Your task to perform on an android device: Clear the cart on costco.com. Search for acer nitro on costco.com, select the first entry, add it to the cart, then select checkout. Image 0: 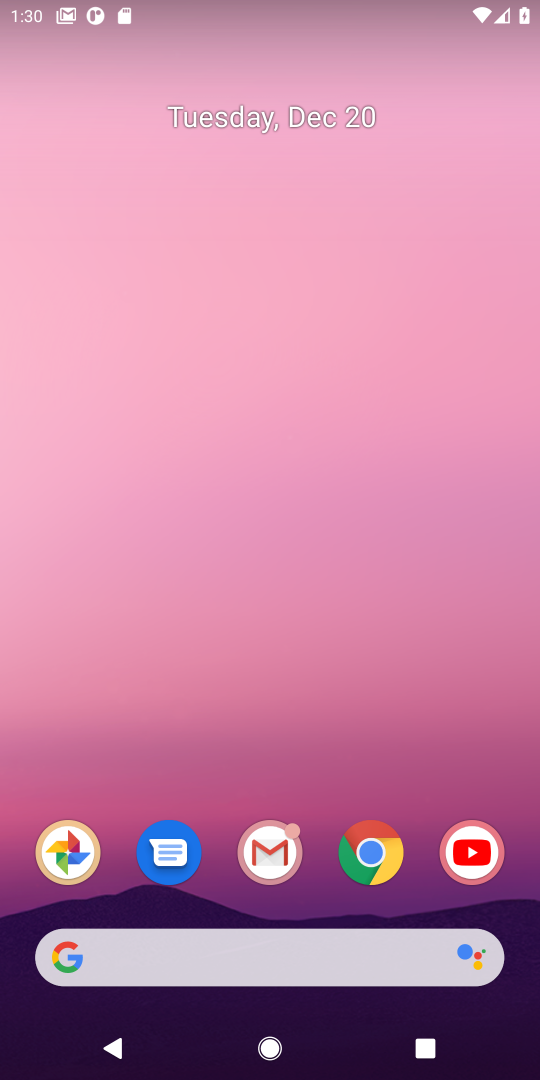
Step 0: click (366, 868)
Your task to perform on an android device: Clear the cart on costco.com. Search for acer nitro on costco.com, select the first entry, add it to the cart, then select checkout. Image 1: 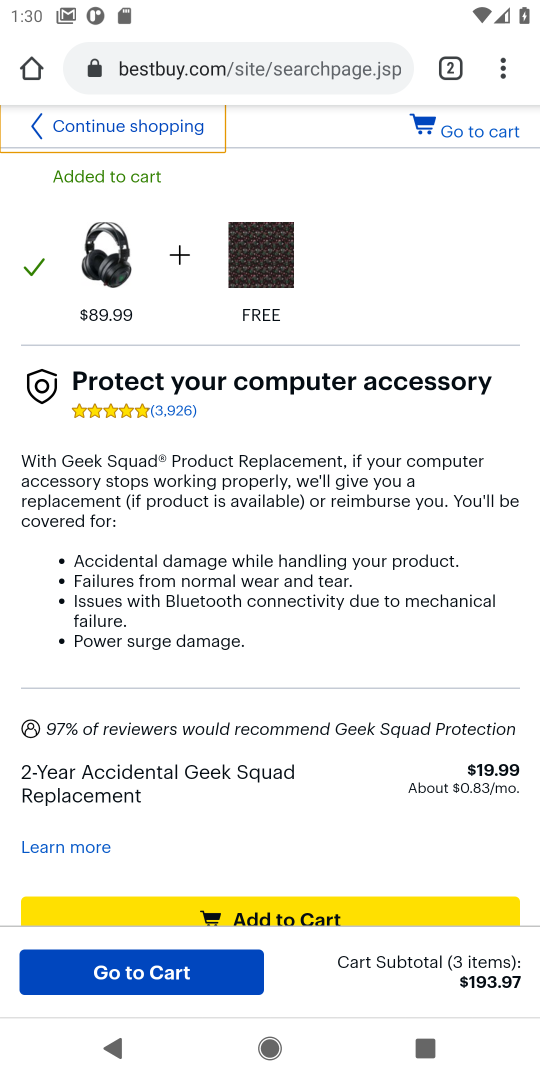
Step 1: click (200, 70)
Your task to perform on an android device: Clear the cart on costco.com. Search for acer nitro on costco.com, select the first entry, add it to the cart, then select checkout. Image 2: 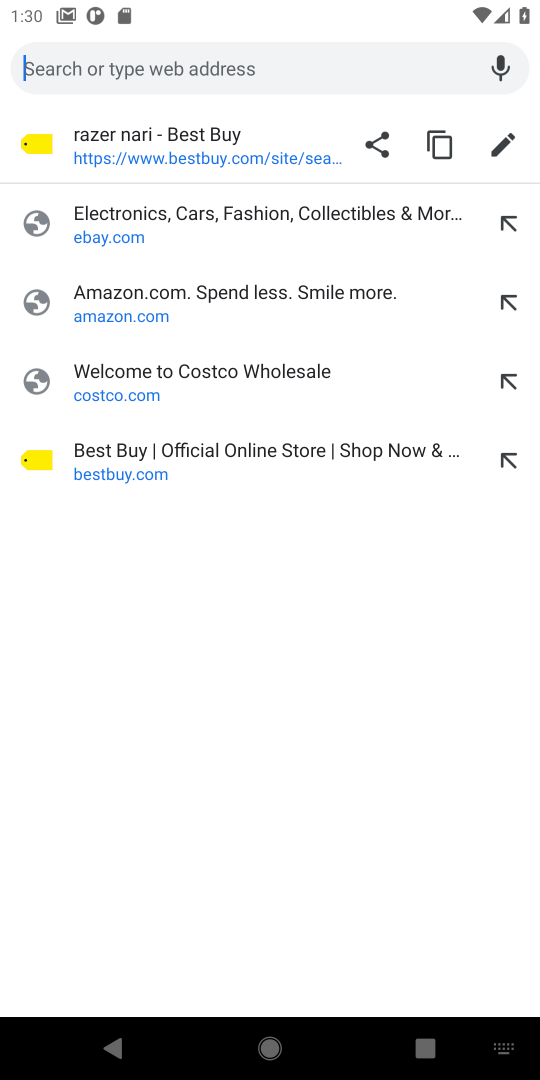
Step 2: click (91, 383)
Your task to perform on an android device: Clear the cart on costco.com. Search for acer nitro on costco.com, select the first entry, add it to the cart, then select checkout. Image 3: 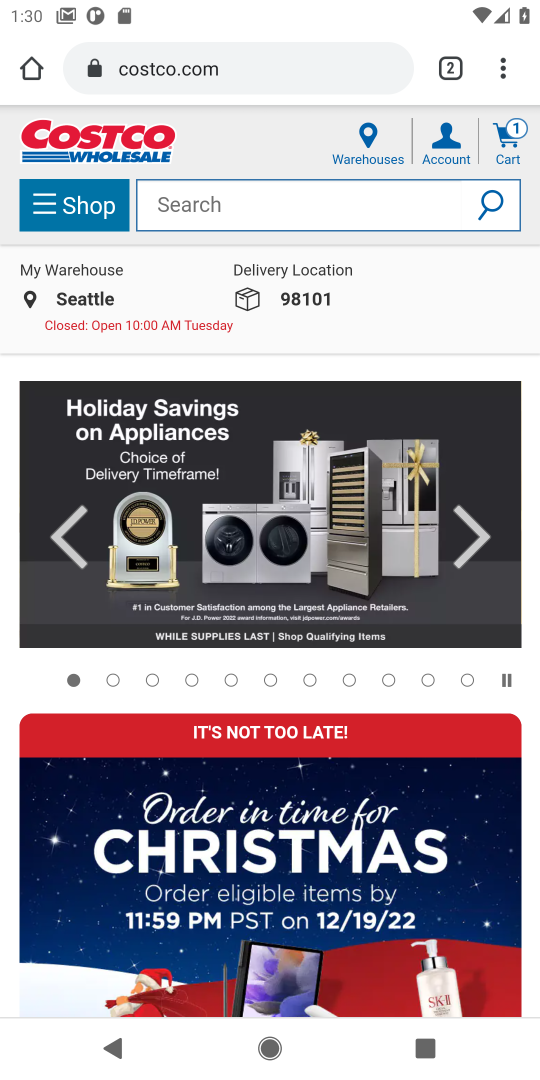
Step 3: click (513, 148)
Your task to perform on an android device: Clear the cart on costco.com. Search for acer nitro on costco.com, select the first entry, add it to the cart, then select checkout. Image 4: 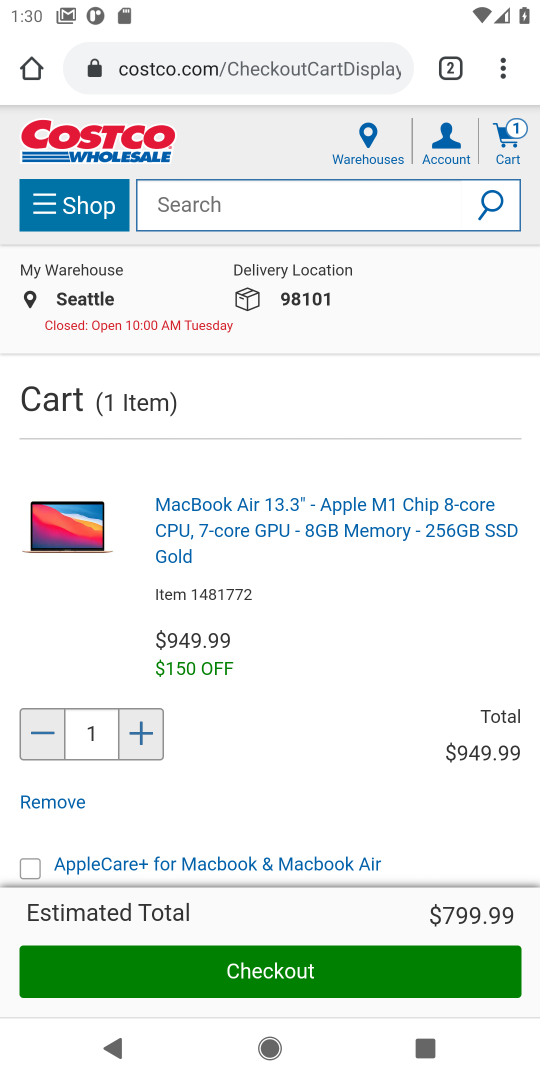
Step 4: drag from (246, 693) to (250, 430)
Your task to perform on an android device: Clear the cart on costco.com. Search for acer nitro on costco.com, select the first entry, add it to the cart, then select checkout. Image 5: 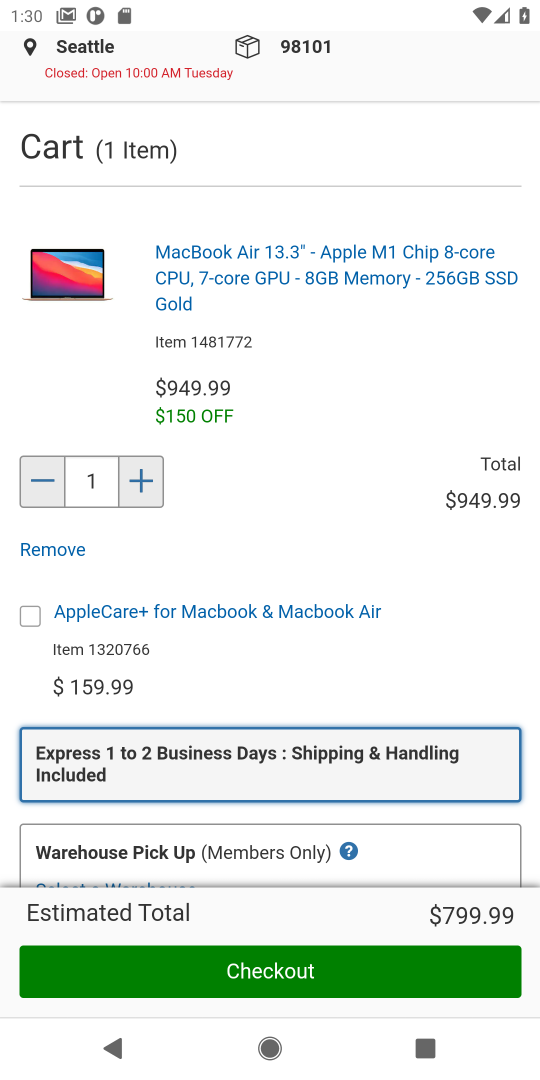
Step 5: drag from (258, 592) to (268, 394)
Your task to perform on an android device: Clear the cart on costco.com. Search for acer nitro on costco.com, select the first entry, add it to the cart, then select checkout. Image 6: 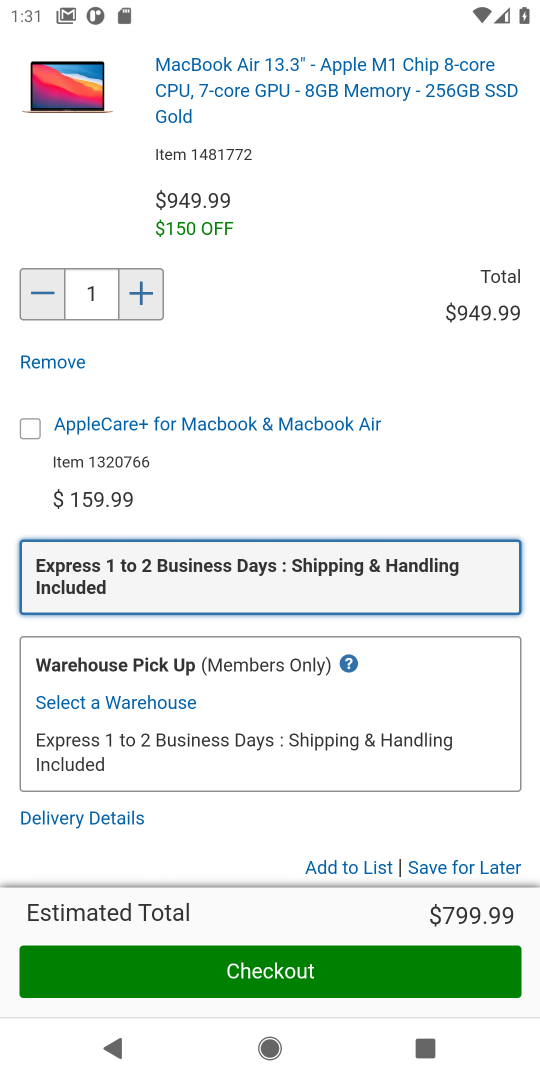
Step 6: click (458, 867)
Your task to perform on an android device: Clear the cart on costco.com. Search for acer nitro on costco.com, select the first entry, add it to the cart, then select checkout. Image 7: 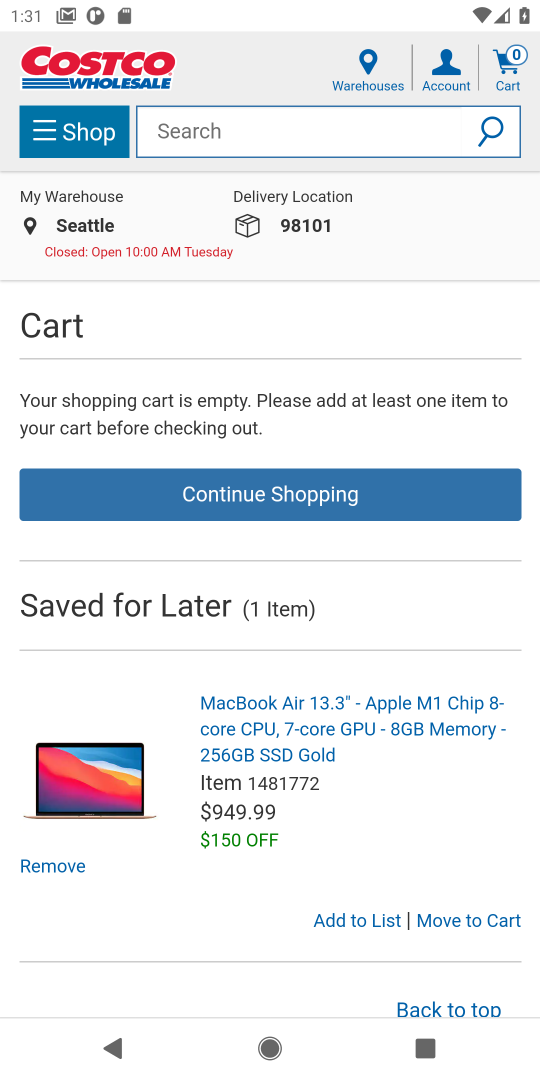
Step 7: click (198, 127)
Your task to perform on an android device: Clear the cart on costco.com. Search for acer nitro on costco.com, select the first entry, add it to the cart, then select checkout. Image 8: 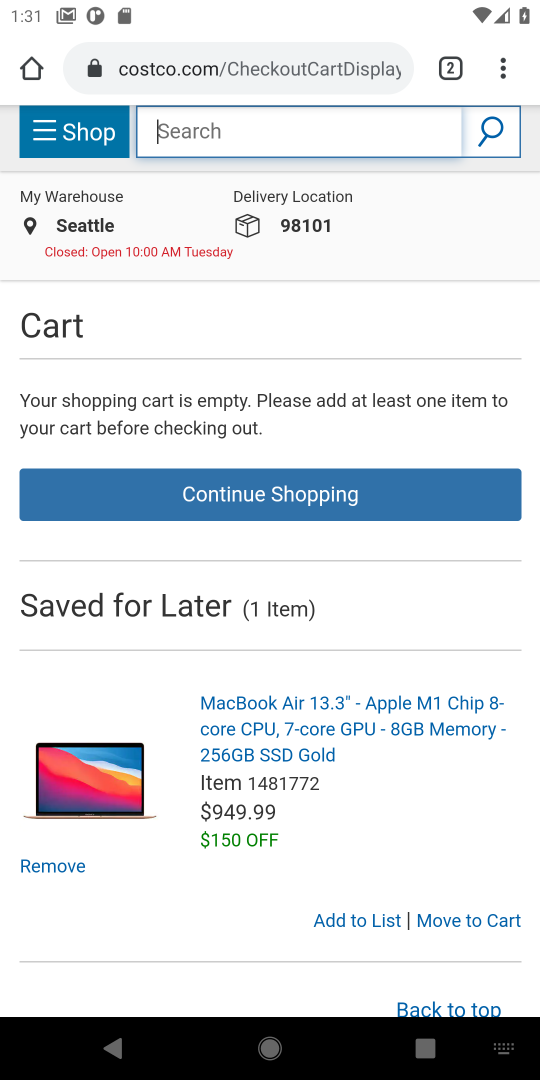
Step 8: type "acer nitro "
Your task to perform on an android device: Clear the cart on costco.com. Search for acer nitro on costco.com, select the first entry, add it to the cart, then select checkout. Image 9: 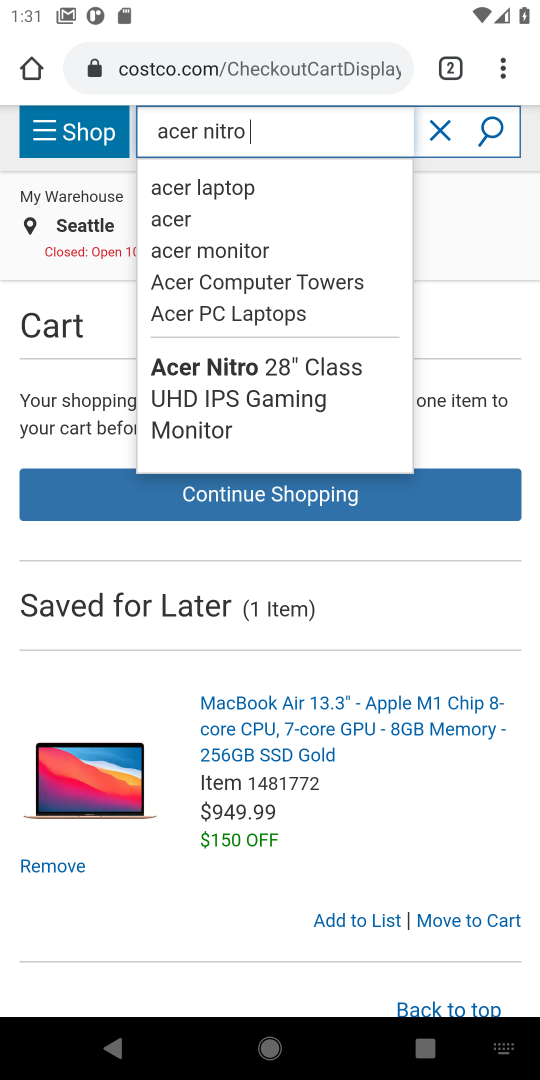
Step 9: click (479, 139)
Your task to perform on an android device: Clear the cart on costco.com. Search for acer nitro on costco.com, select the first entry, add it to the cart, then select checkout. Image 10: 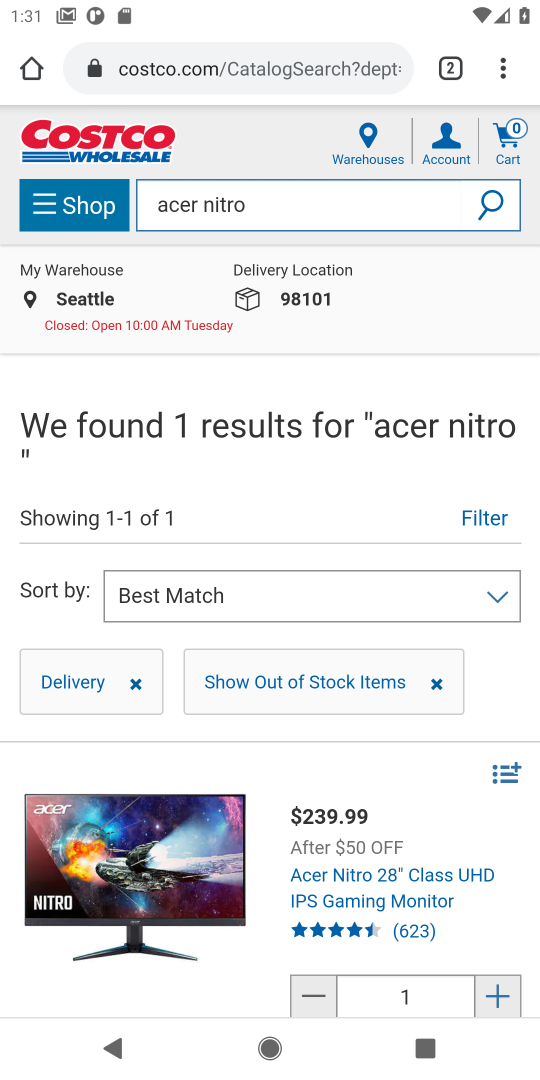
Step 10: drag from (207, 696) to (203, 457)
Your task to perform on an android device: Clear the cart on costco.com. Search for acer nitro on costco.com, select the first entry, add it to the cart, then select checkout. Image 11: 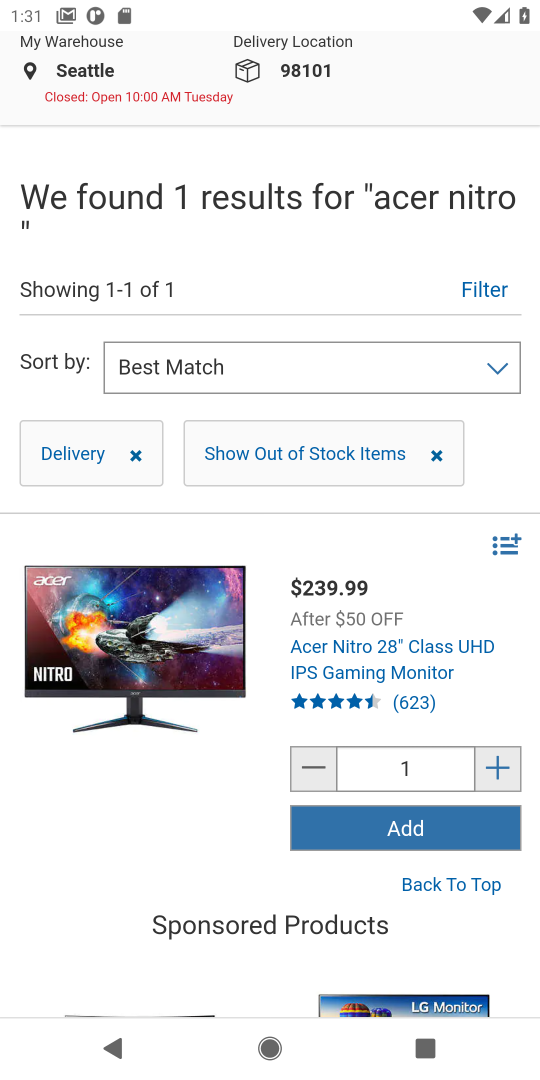
Step 11: click (391, 829)
Your task to perform on an android device: Clear the cart on costco.com. Search for acer nitro on costco.com, select the first entry, add it to the cart, then select checkout. Image 12: 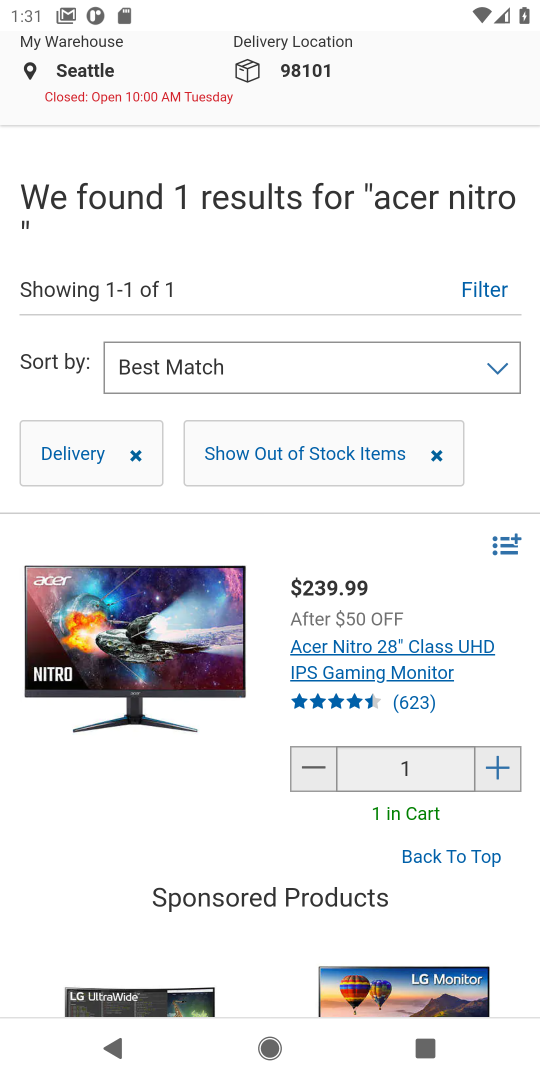
Step 12: drag from (340, 256) to (252, 599)
Your task to perform on an android device: Clear the cart on costco.com. Search for acer nitro on costco.com, select the first entry, add it to the cart, then select checkout. Image 13: 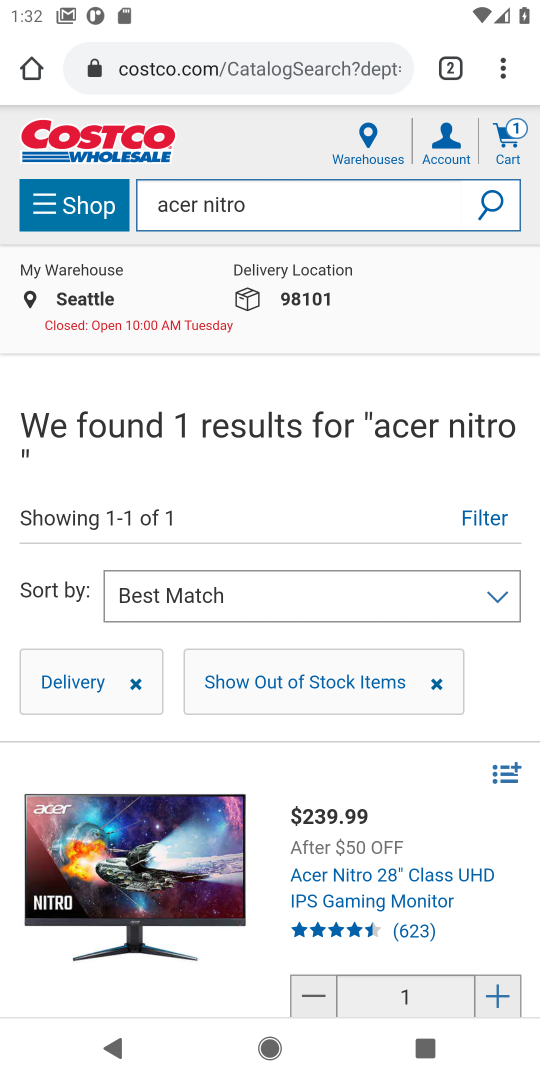
Step 13: click (504, 146)
Your task to perform on an android device: Clear the cart on costco.com. Search for acer nitro on costco.com, select the first entry, add it to the cart, then select checkout. Image 14: 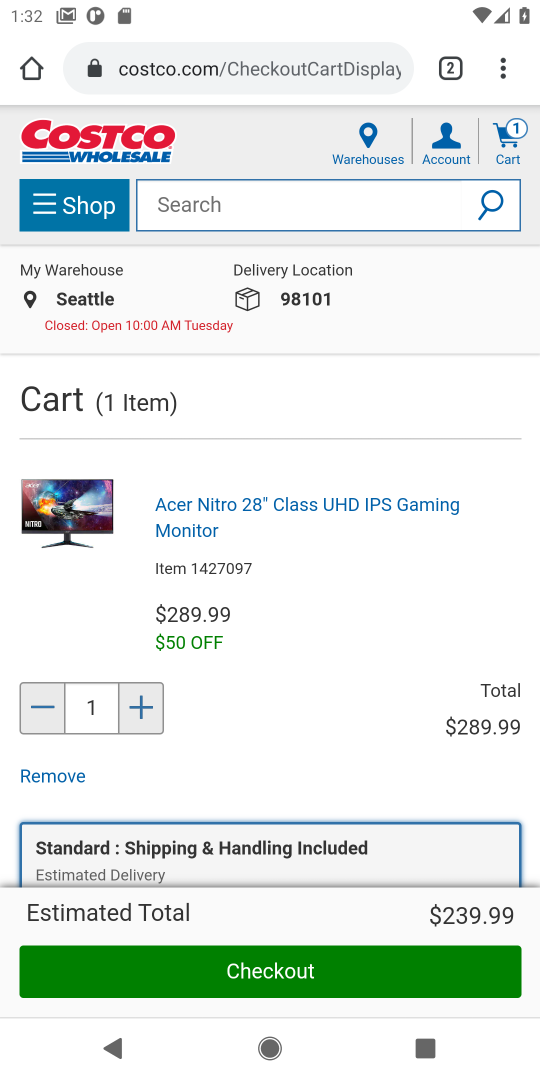
Step 14: click (250, 972)
Your task to perform on an android device: Clear the cart on costco.com. Search for acer nitro on costco.com, select the first entry, add it to the cart, then select checkout. Image 15: 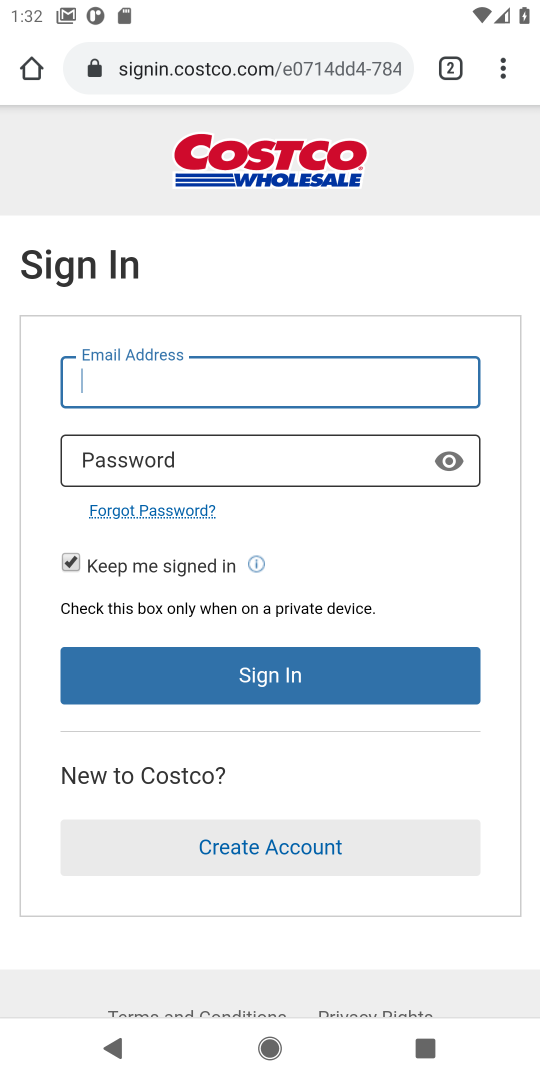
Step 15: task complete